Your task to perform on an android device: turn off notifications settings in the gmail app Image 0: 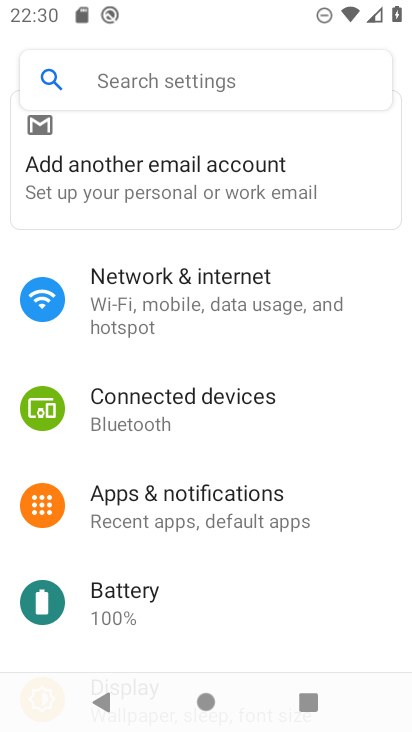
Step 0: press home button
Your task to perform on an android device: turn off notifications settings in the gmail app Image 1: 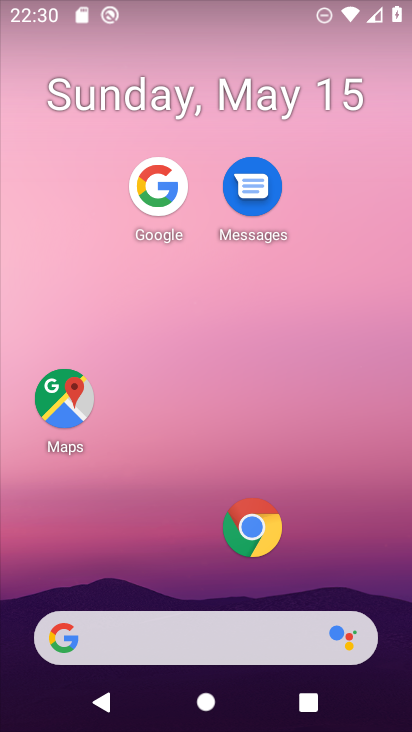
Step 1: drag from (200, 596) to (311, 158)
Your task to perform on an android device: turn off notifications settings in the gmail app Image 2: 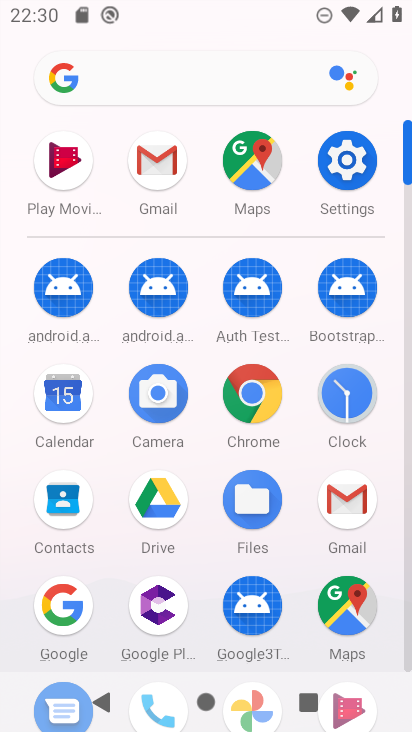
Step 2: click (156, 178)
Your task to perform on an android device: turn off notifications settings in the gmail app Image 3: 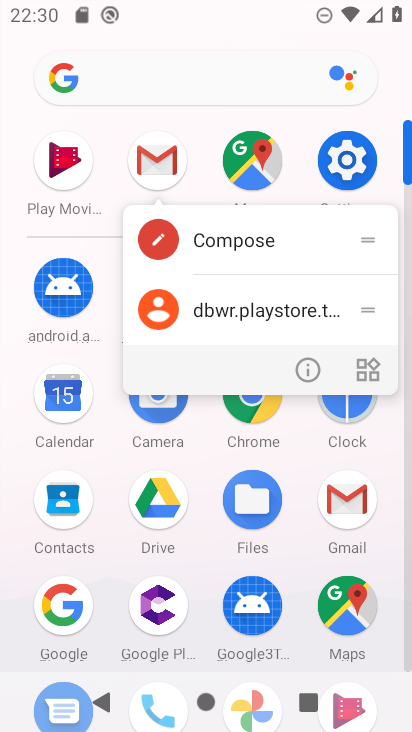
Step 3: click (157, 160)
Your task to perform on an android device: turn off notifications settings in the gmail app Image 4: 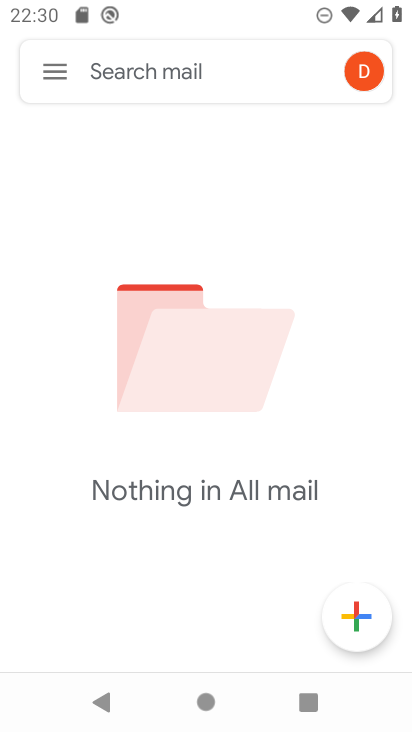
Step 4: click (50, 72)
Your task to perform on an android device: turn off notifications settings in the gmail app Image 5: 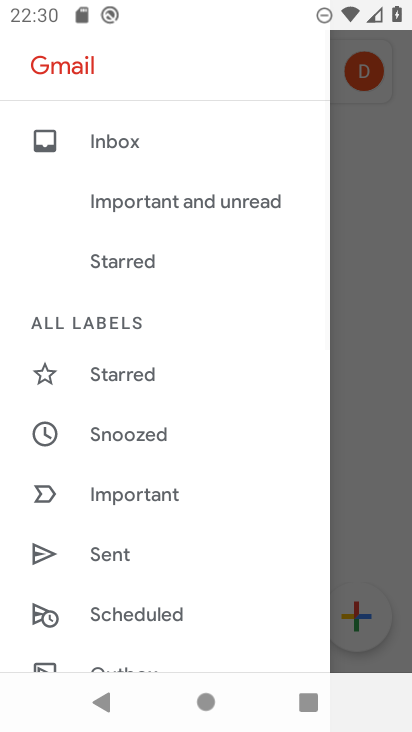
Step 5: drag from (189, 589) to (297, 0)
Your task to perform on an android device: turn off notifications settings in the gmail app Image 6: 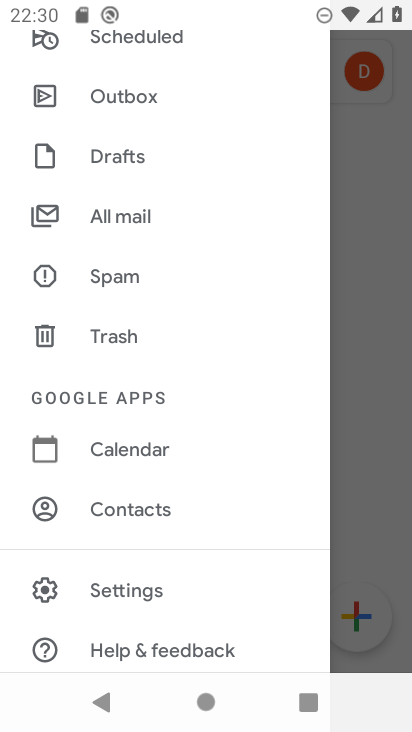
Step 6: click (137, 591)
Your task to perform on an android device: turn off notifications settings in the gmail app Image 7: 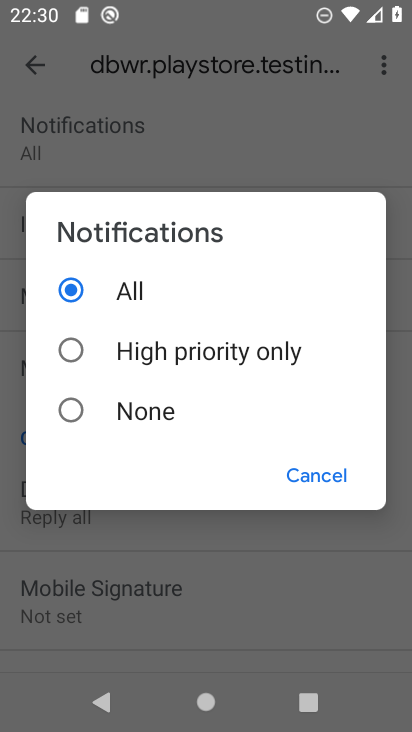
Step 7: click (70, 408)
Your task to perform on an android device: turn off notifications settings in the gmail app Image 8: 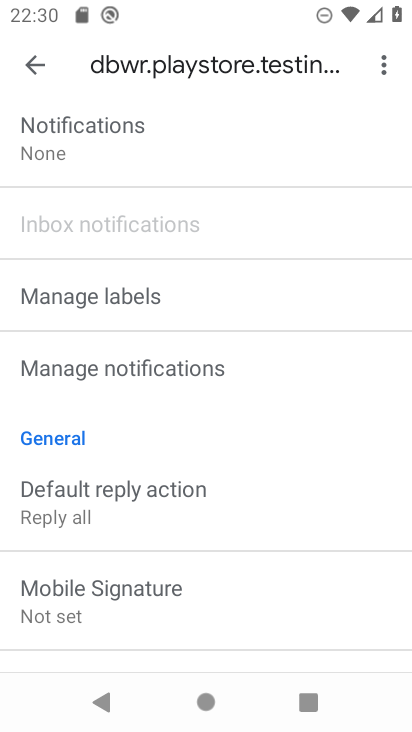
Step 8: task complete